Your task to perform on an android device: turn off data saver in the chrome app Image 0: 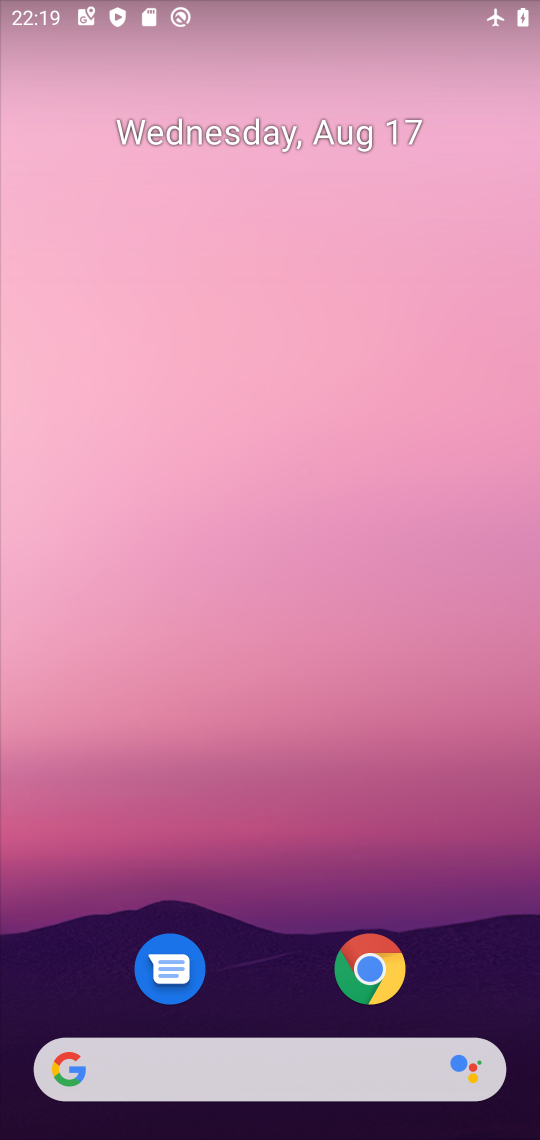
Step 0: click (369, 976)
Your task to perform on an android device: turn off data saver in the chrome app Image 1: 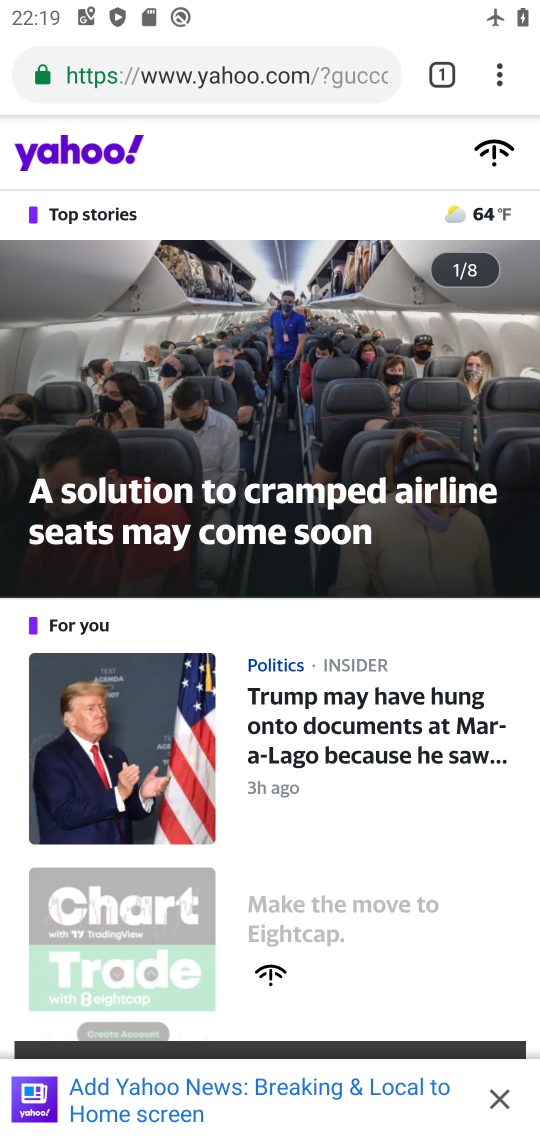
Step 1: click (489, 79)
Your task to perform on an android device: turn off data saver in the chrome app Image 2: 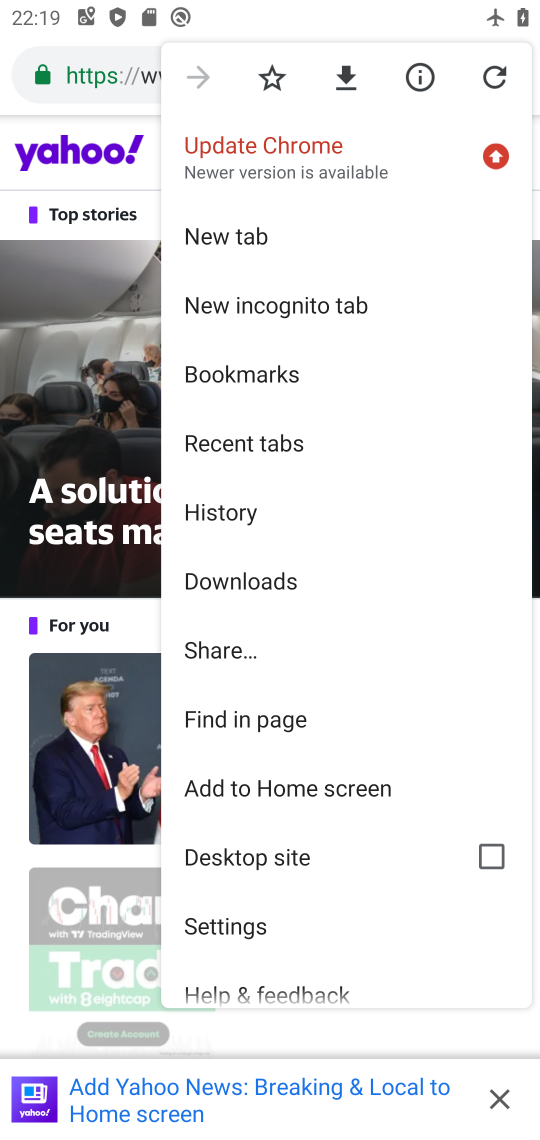
Step 2: click (241, 920)
Your task to perform on an android device: turn off data saver in the chrome app Image 3: 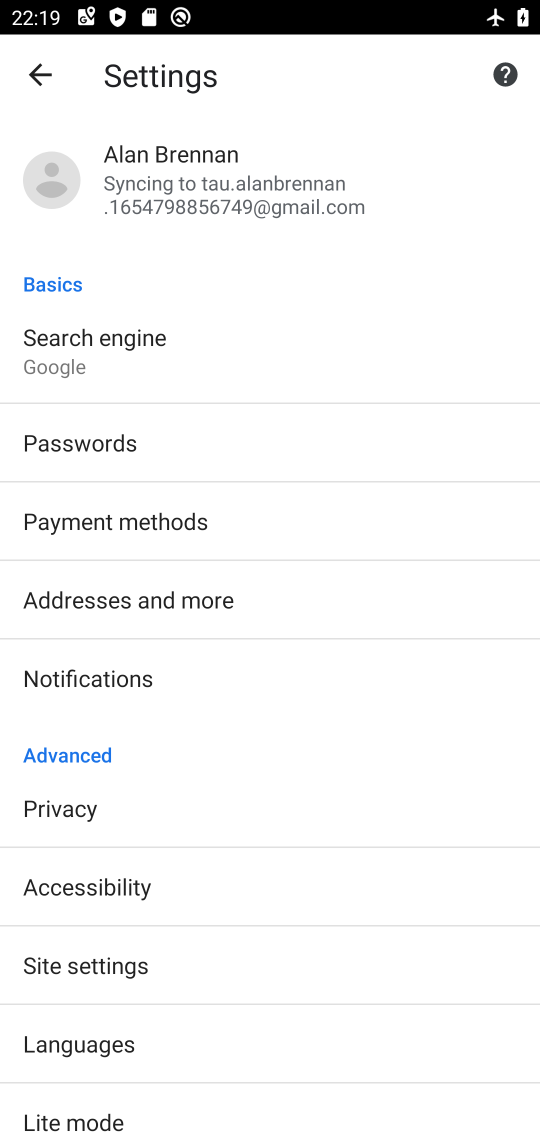
Step 3: click (98, 1114)
Your task to perform on an android device: turn off data saver in the chrome app Image 4: 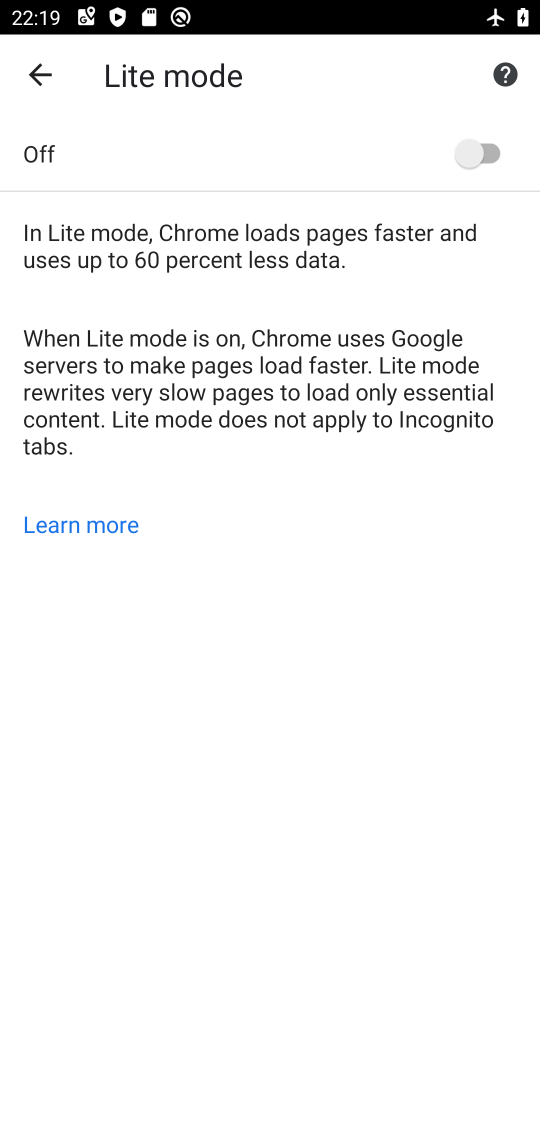
Step 4: task complete